Your task to perform on an android device: all mails in gmail Image 0: 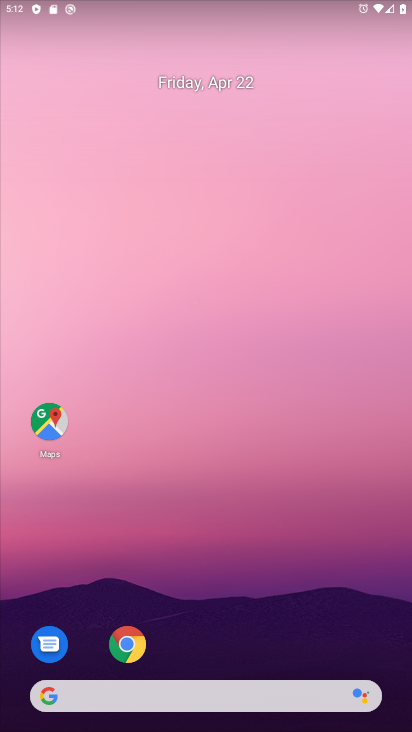
Step 0: drag from (181, 590) to (264, 67)
Your task to perform on an android device: all mails in gmail Image 1: 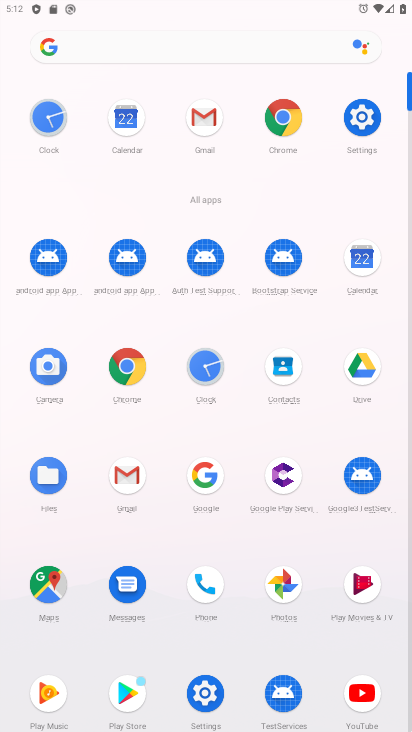
Step 1: click (128, 482)
Your task to perform on an android device: all mails in gmail Image 2: 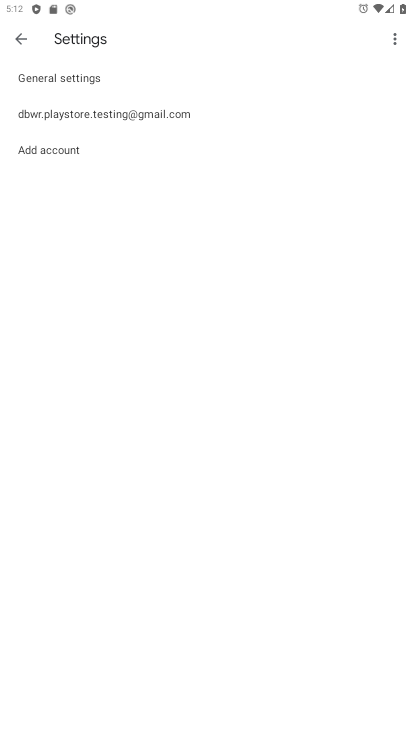
Step 2: click (20, 38)
Your task to perform on an android device: all mails in gmail Image 3: 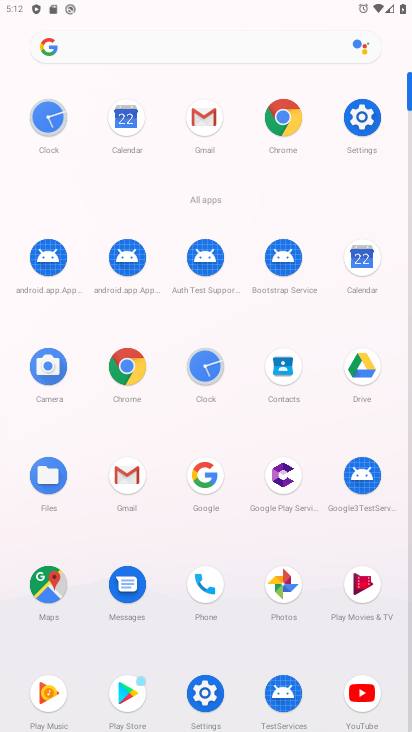
Step 3: click (121, 492)
Your task to perform on an android device: all mails in gmail Image 4: 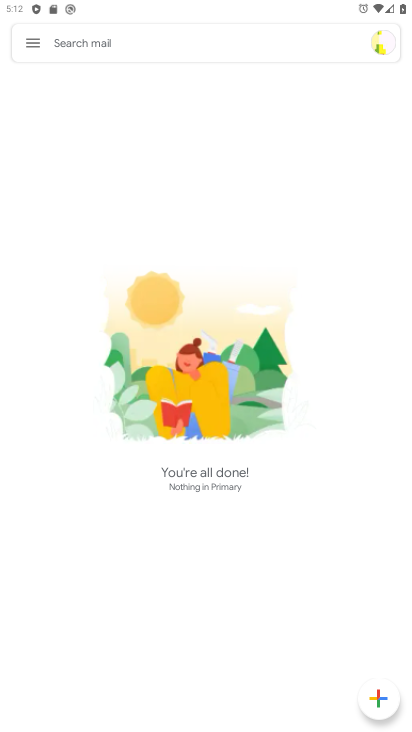
Step 4: click (35, 38)
Your task to perform on an android device: all mails in gmail Image 5: 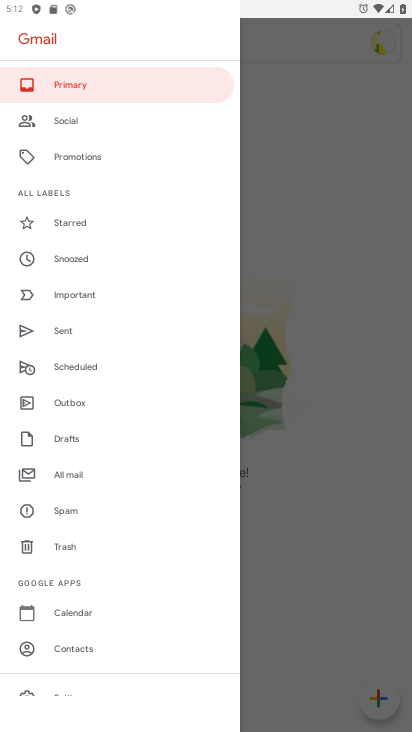
Step 5: click (76, 469)
Your task to perform on an android device: all mails in gmail Image 6: 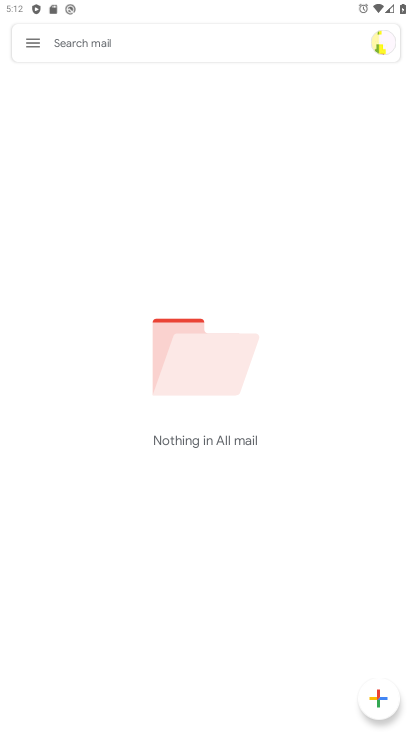
Step 6: task complete